Your task to perform on an android device: What's on my calendar today? Image 0: 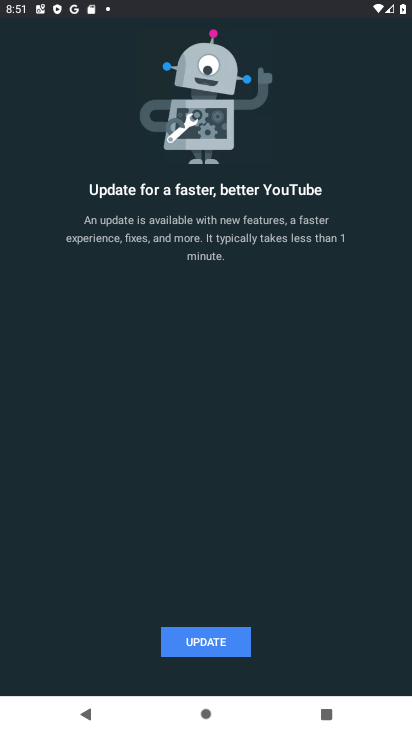
Step 0: press home button
Your task to perform on an android device: What's on my calendar today? Image 1: 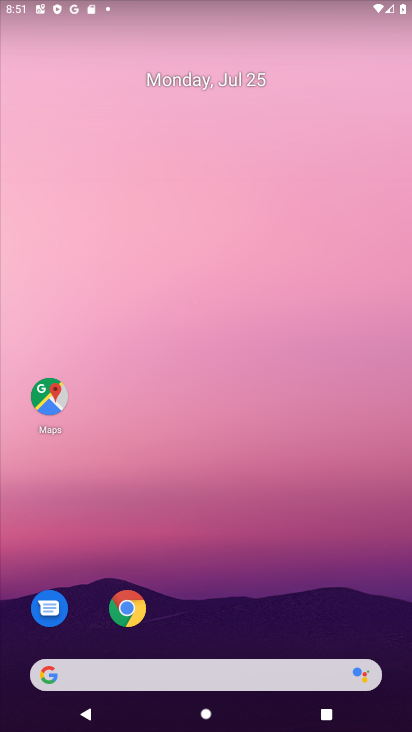
Step 1: drag from (255, 643) to (251, 398)
Your task to perform on an android device: What's on my calendar today? Image 2: 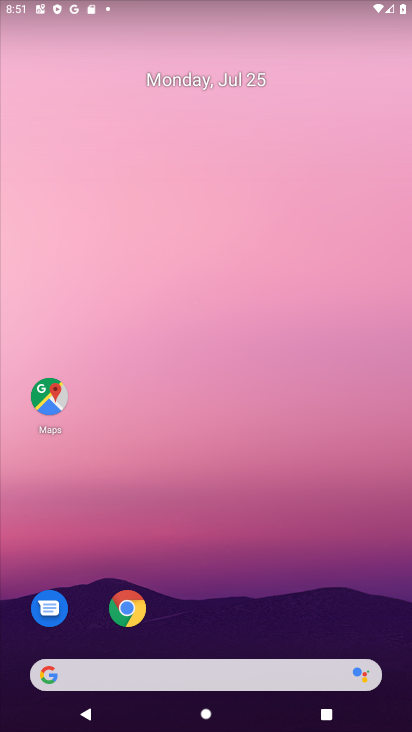
Step 2: drag from (297, 625) to (259, 89)
Your task to perform on an android device: What's on my calendar today? Image 3: 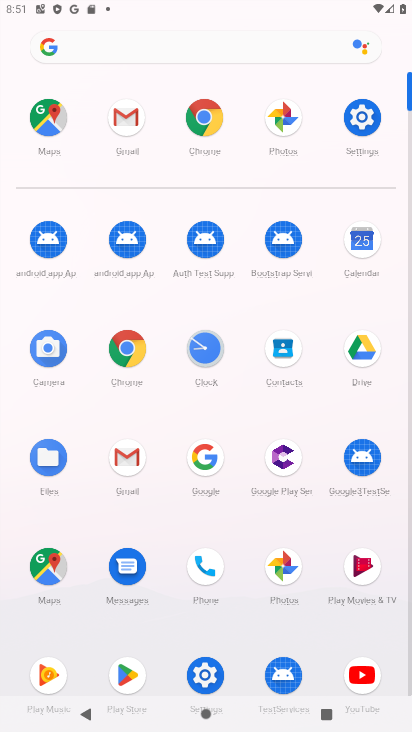
Step 3: click (357, 234)
Your task to perform on an android device: What's on my calendar today? Image 4: 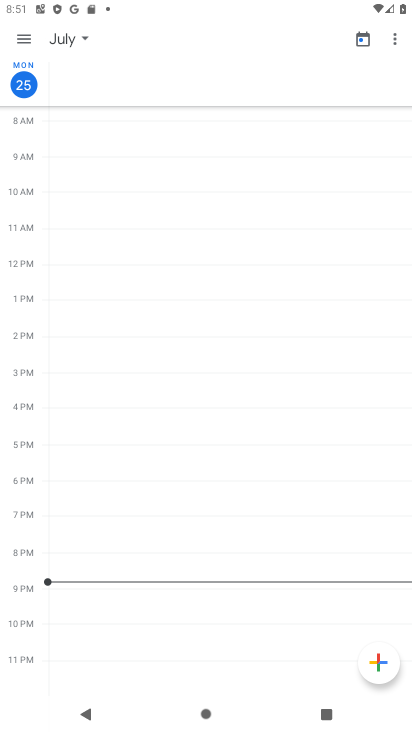
Step 4: click (23, 32)
Your task to perform on an android device: What's on my calendar today? Image 5: 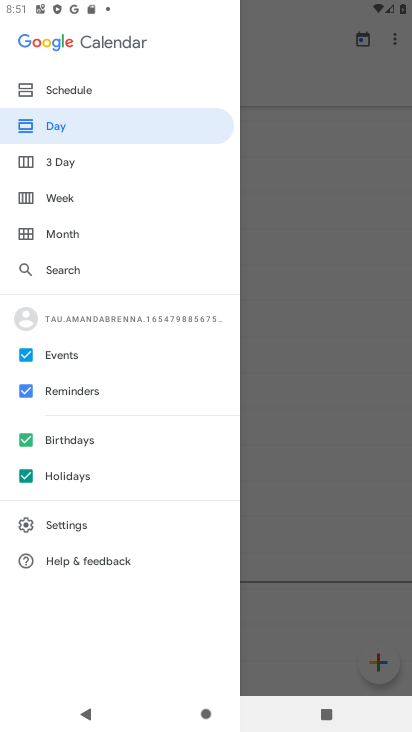
Step 5: click (91, 233)
Your task to perform on an android device: What's on my calendar today? Image 6: 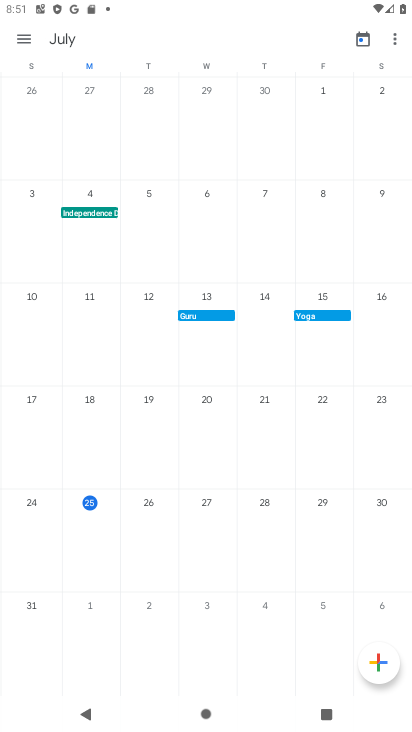
Step 6: click (153, 515)
Your task to perform on an android device: What's on my calendar today? Image 7: 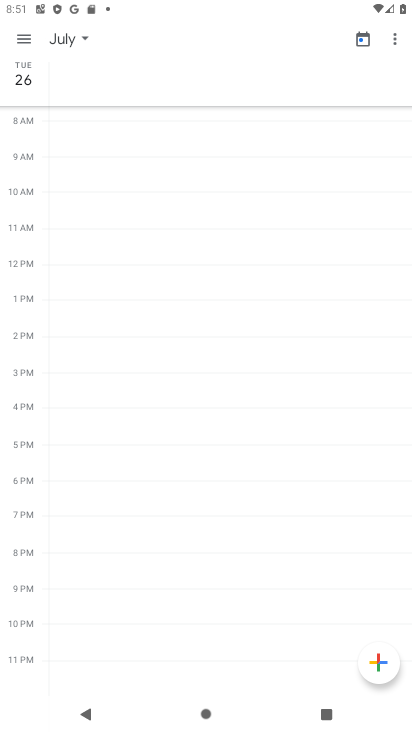
Step 7: task complete